Your task to perform on an android device: Go to settings Image 0: 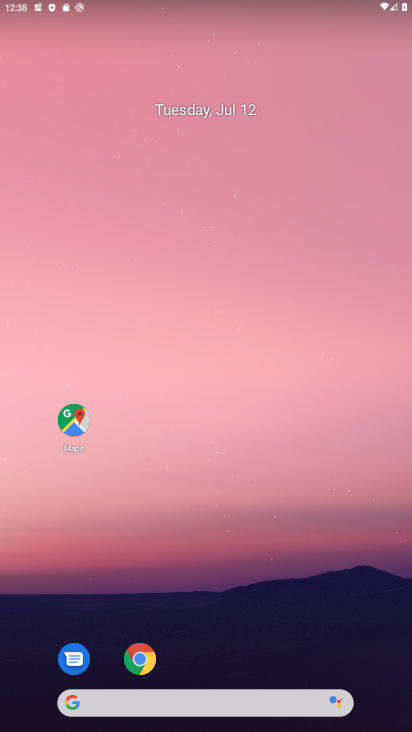
Step 0: drag from (231, 728) to (233, 161)
Your task to perform on an android device: Go to settings Image 1: 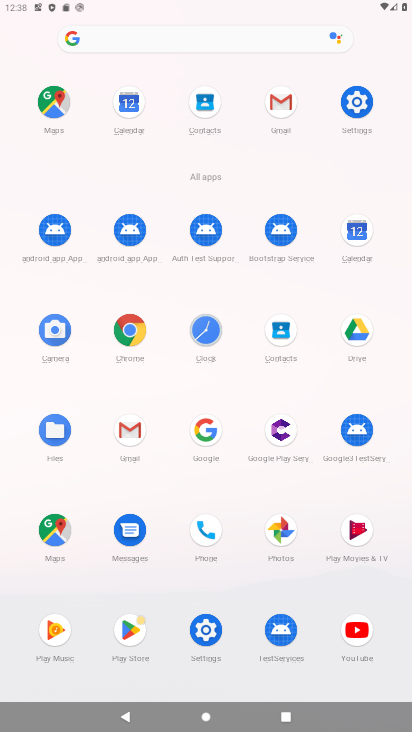
Step 1: click (363, 96)
Your task to perform on an android device: Go to settings Image 2: 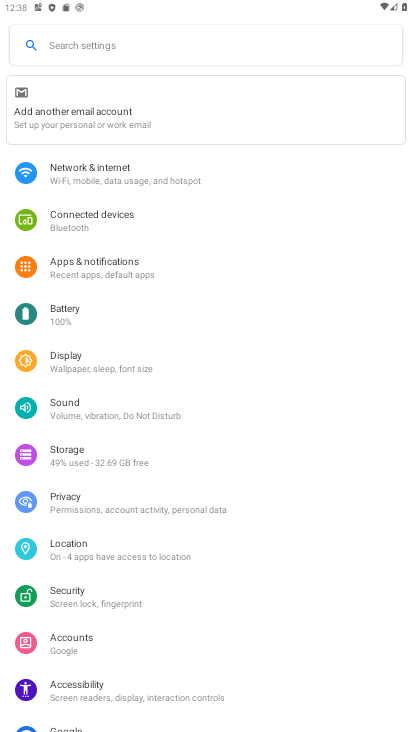
Step 2: task complete